Your task to perform on an android device: Open Wikipedia Image 0: 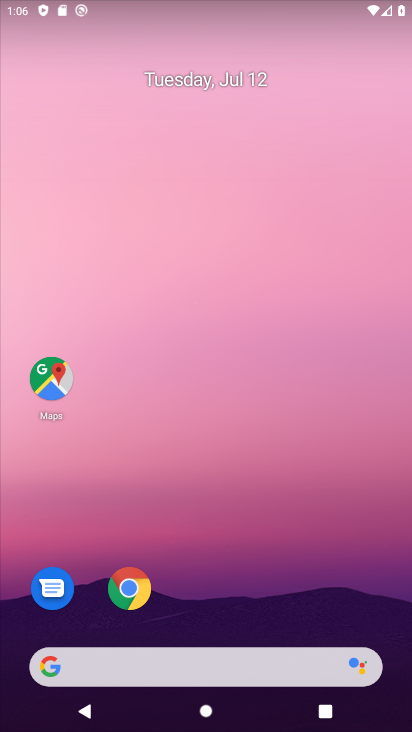
Step 0: click (249, 149)
Your task to perform on an android device: Open Wikipedia Image 1: 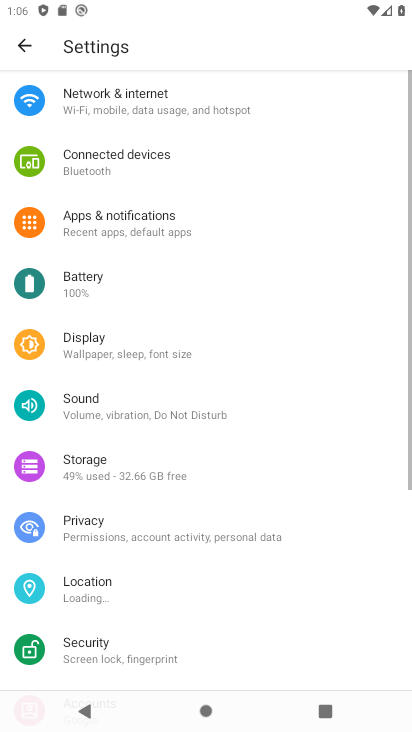
Step 1: drag from (219, 599) to (222, 233)
Your task to perform on an android device: Open Wikipedia Image 2: 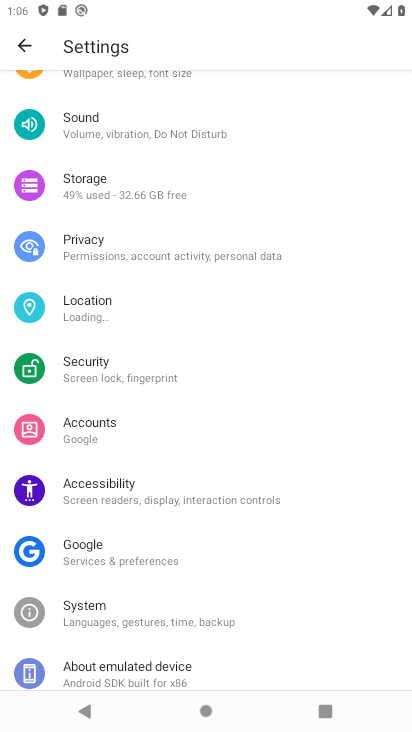
Step 2: drag from (233, 160) to (398, 731)
Your task to perform on an android device: Open Wikipedia Image 3: 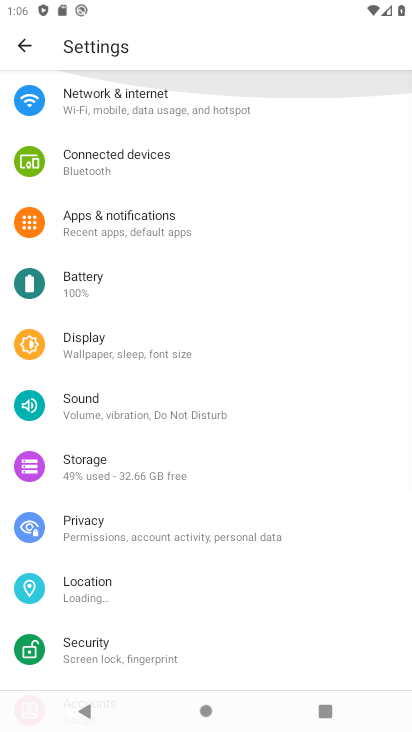
Step 3: press home button
Your task to perform on an android device: Open Wikipedia Image 4: 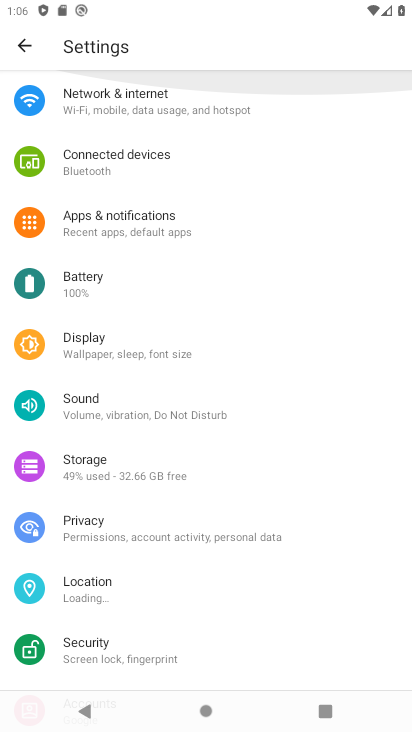
Step 4: click (397, 592)
Your task to perform on an android device: Open Wikipedia Image 5: 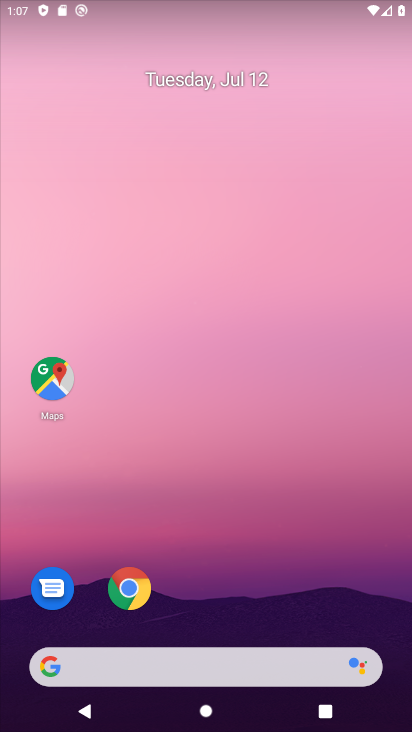
Step 5: drag from (201, 590) to (233, 200)
Your task to perform on an android device: Open Wikipedia Image 6: 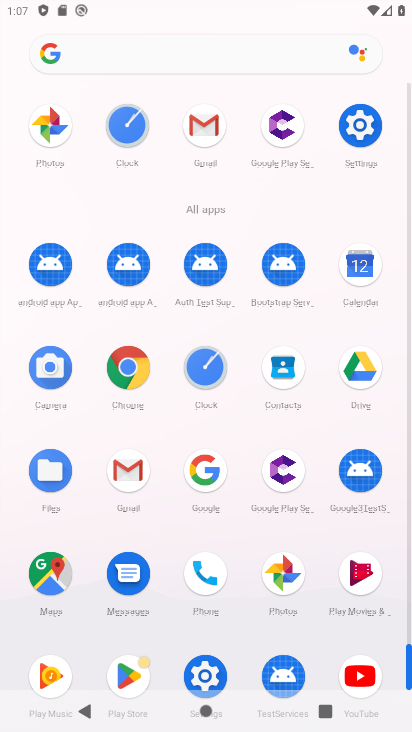
Step 6: click (190, 50)
Your task to perform on an android device: Open Wikipedia Image 7: 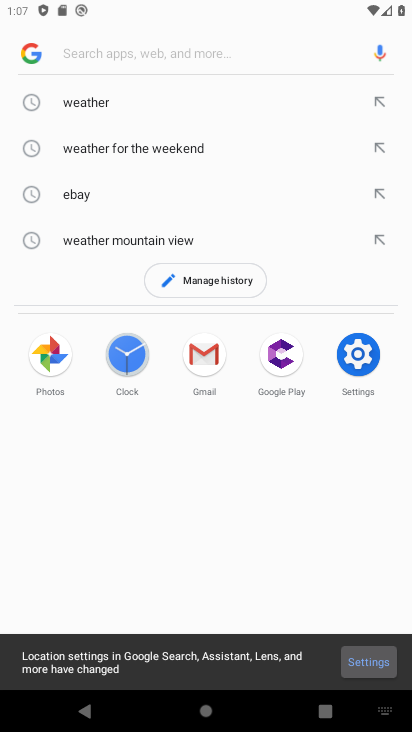
Step 7: type "Wikipedia"
Your task to perform on an android device: Open Wikipedia Image 8: 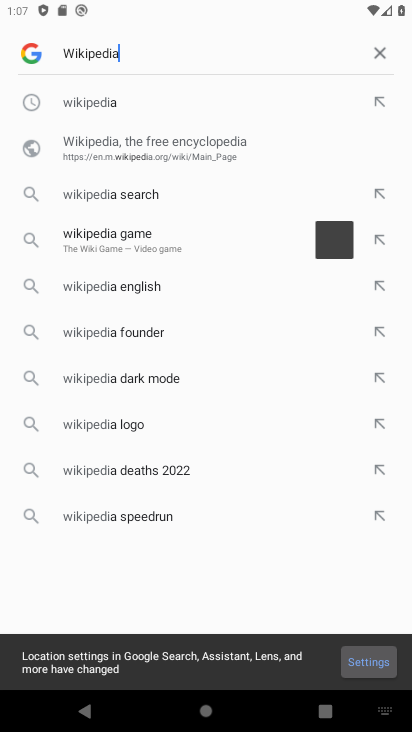
Step 8: type ""
Your task to perform on an android device: Open Wikipedia Image 9: 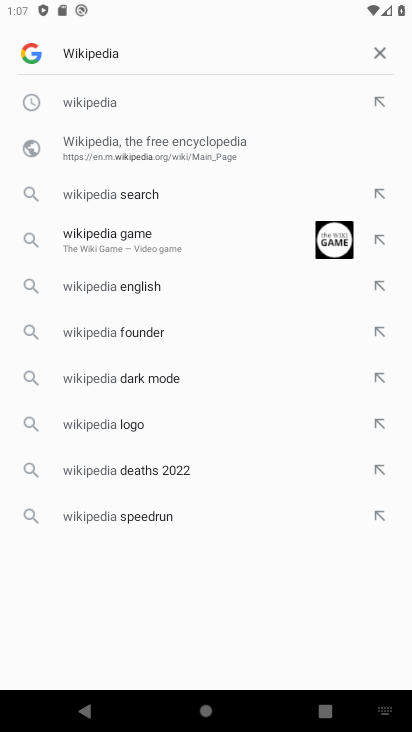
Step 9: click (79, 97)
Your task to perform on an android device: Open Wikipedia Image 10: 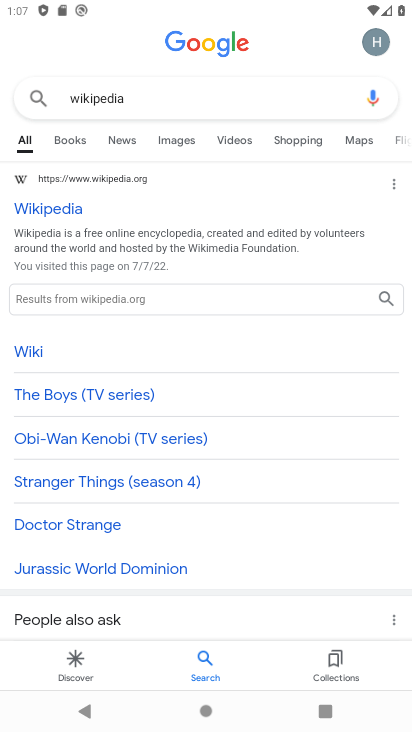
Step 10: click (46, 203)
Your task to perform on an android device: Open Wikipedia Image 11: 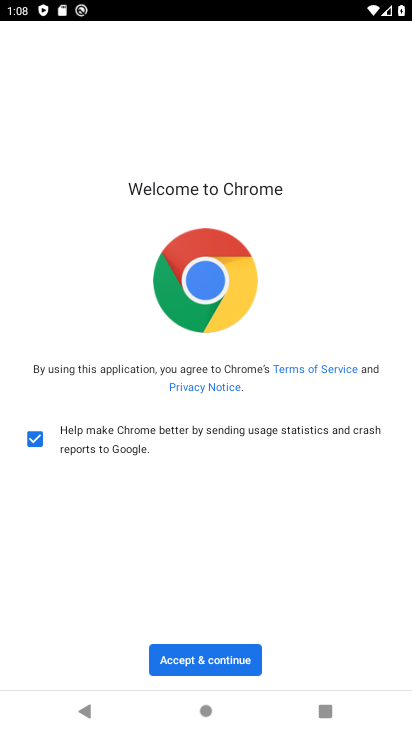
Step 11: click (210, 572)
Your task to perform on an android device: Open Wikipedia Image 12: 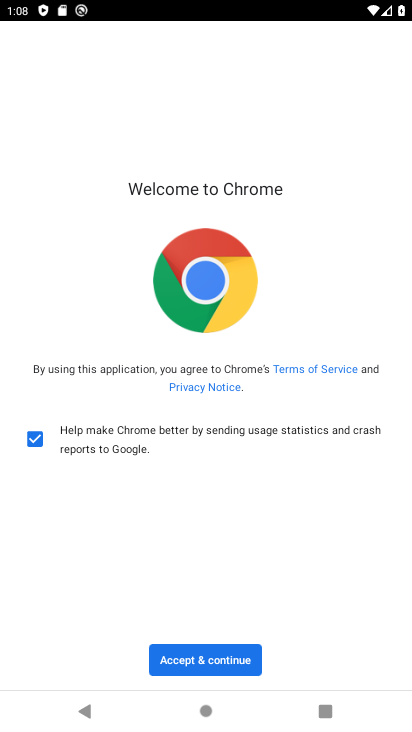
Step 12: click (206, 666)
Your task to perform on an android device: Open Wikipedia Image 13: 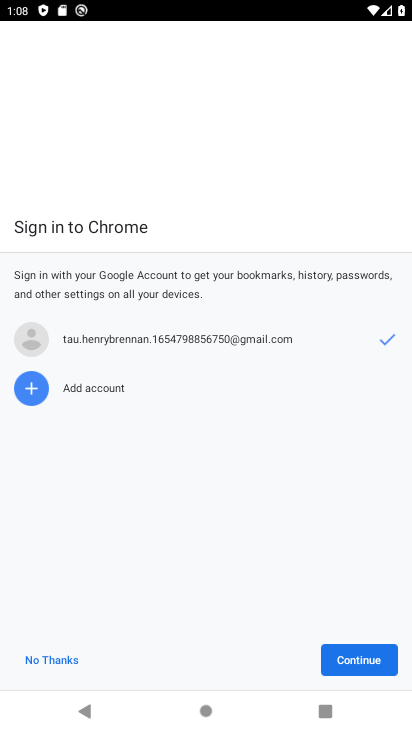
Step 13: click (399, 647)
Your task to perform on an android device: Open Wikipedia Image 14: 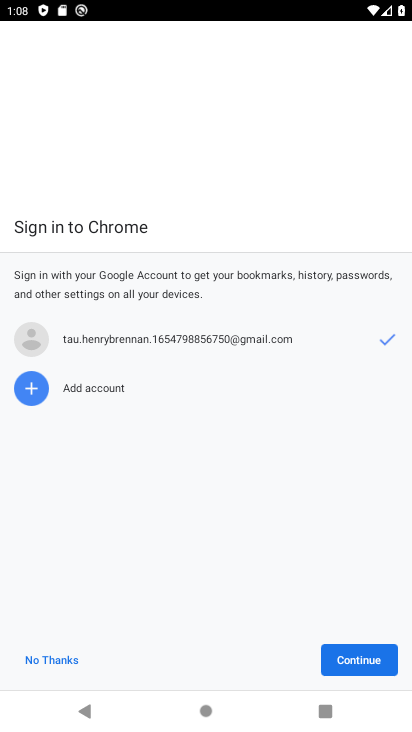
Step 14: click (357, 661)
Your task to perform on an android device: Open Wikipedia Image 15: 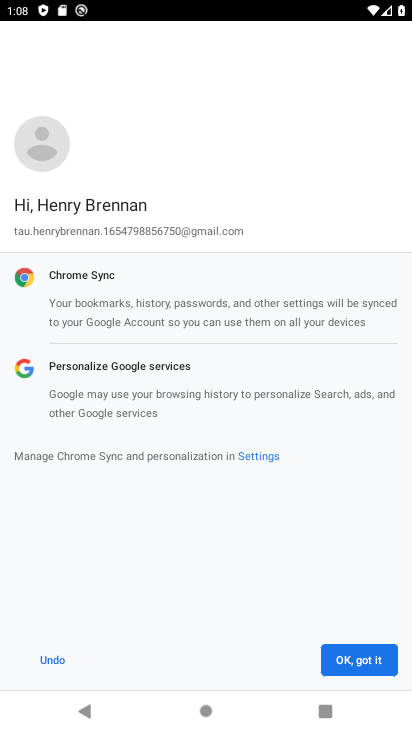
Step 15: click (358, 660)
Your task to perform on an android device: Open Wikipedia Image 16: 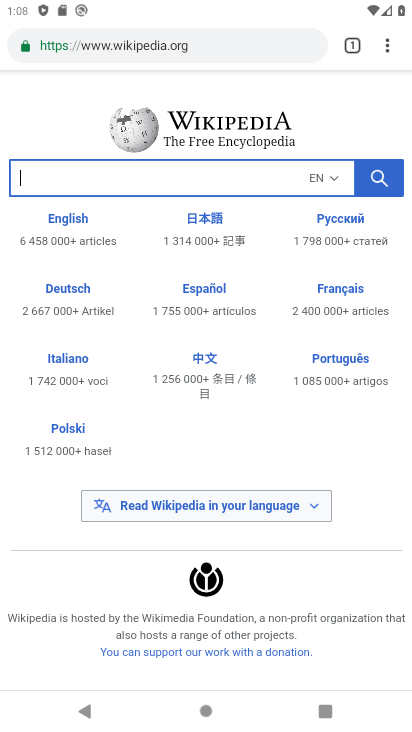
Step 16: task complete